Your task to perform on an android device: turn off wifi Image 0: 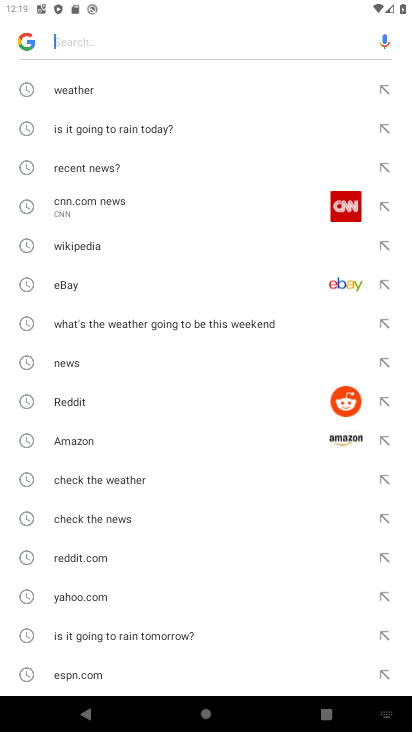
Step 0: press home button
Your task to perform on an android device: turn off wifi Image 1: 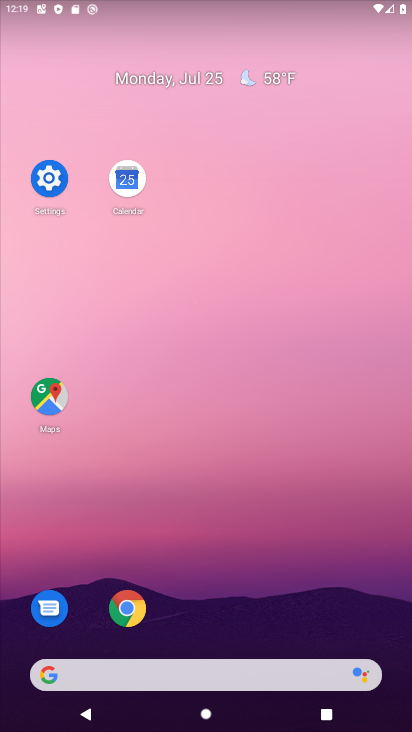
Step 1: click (47, 176)
Your task to perform on an android device: turn off wifi Image 2: 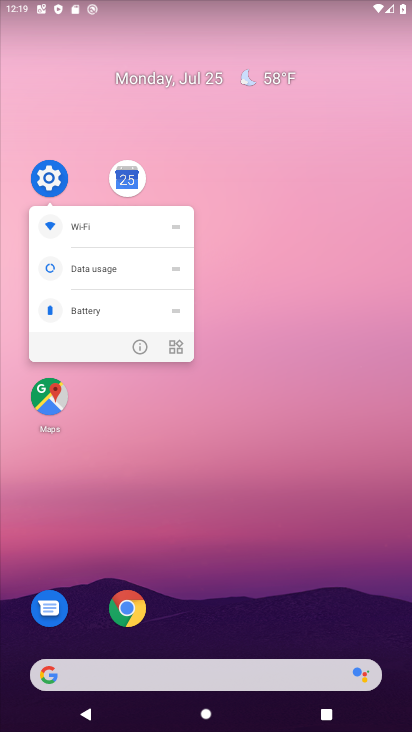
Step 2: click (49, 177)
Your task to perform on an android device: turn off wifi Image 3: 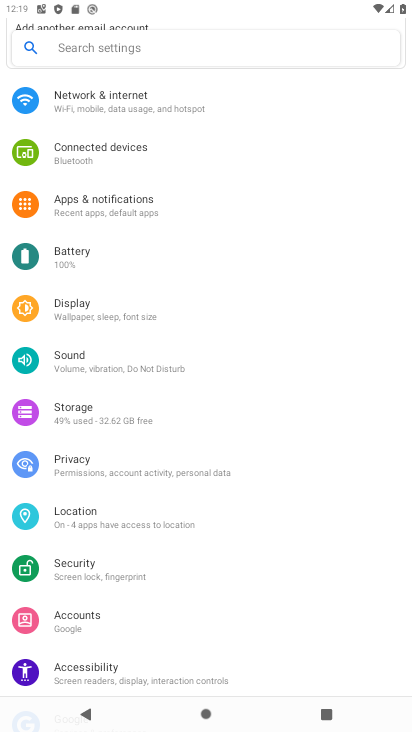
Step 3: drag from (161, 108) to (200, 345)
Your task to perform on an android device: turn off wifi Image 4: 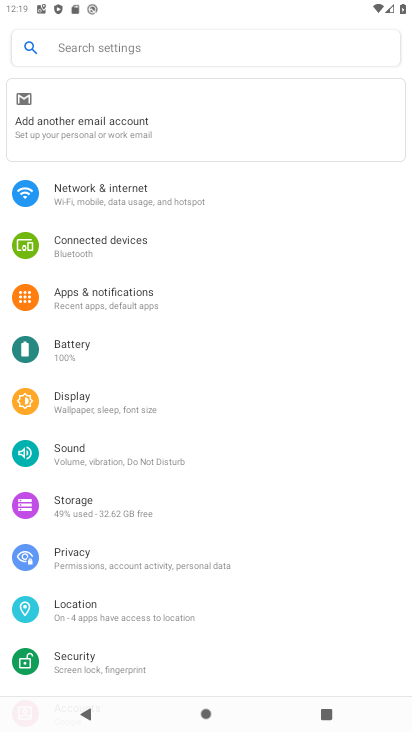
Step 4: click (192, 193)
Your task to perform on an android device: turn off wifi Image 5: 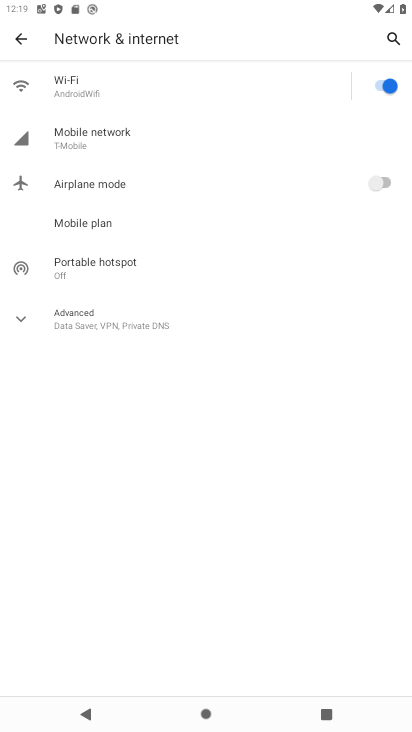
Step 5: click (177, 82)
Your task to perform on an android device: turn off wifi Image 6: 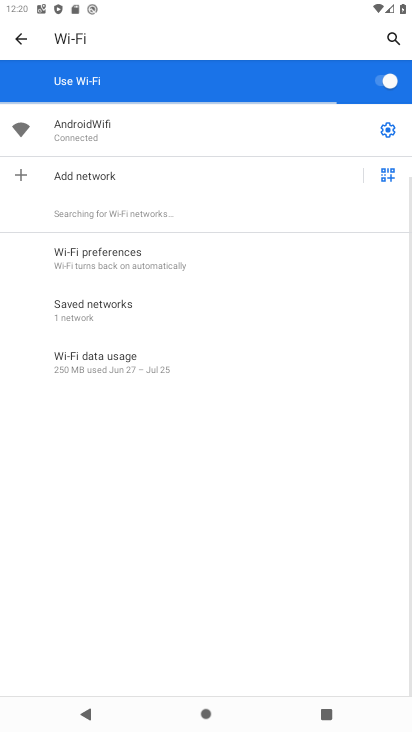
Step 6: click (393, 76)
Your task to perform on an android device: turn off wifi Image 7: 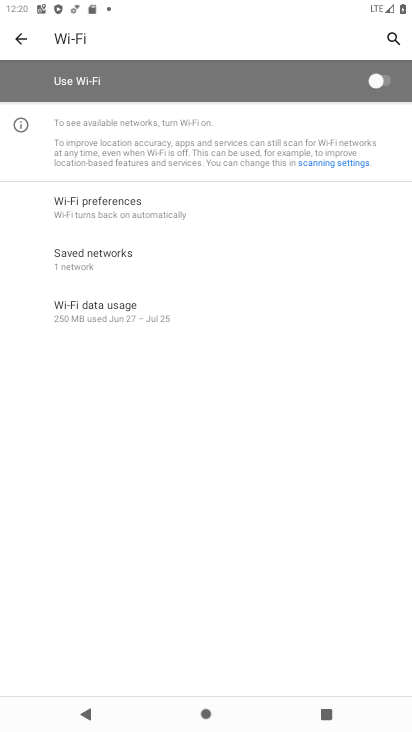
Step 7: task complete